Your task to perform on an android device: delete a single message in the gmail app Image 0: 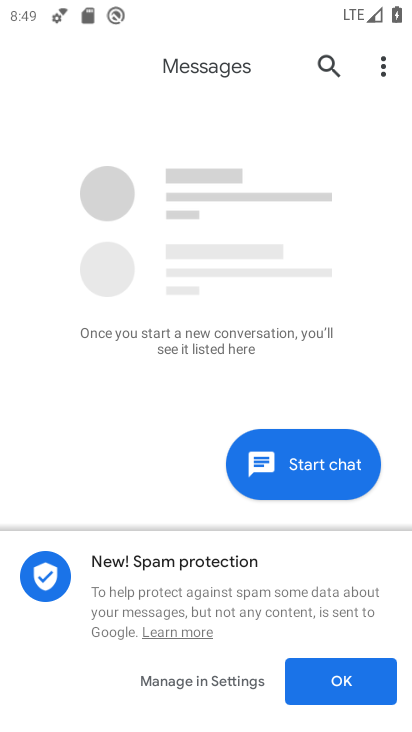
Step 0: press home button
Your task to perform on an android device: delete a single message in the gmail app Image 1: 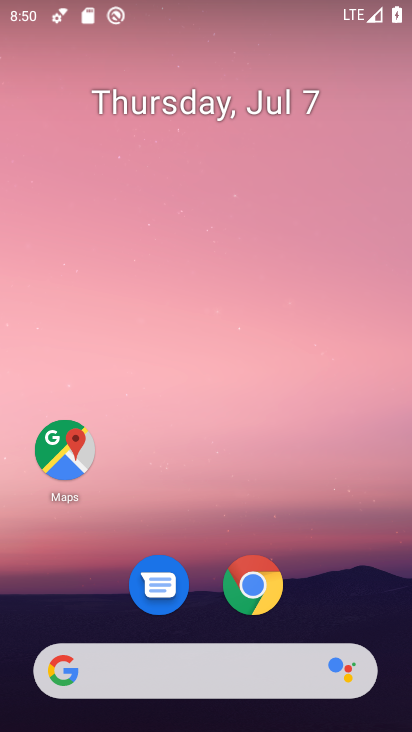
Step 1: drag from (242, 479) to (259, 53)
Your task to perform on an android device: delete a single message in the gmail app Image 2: 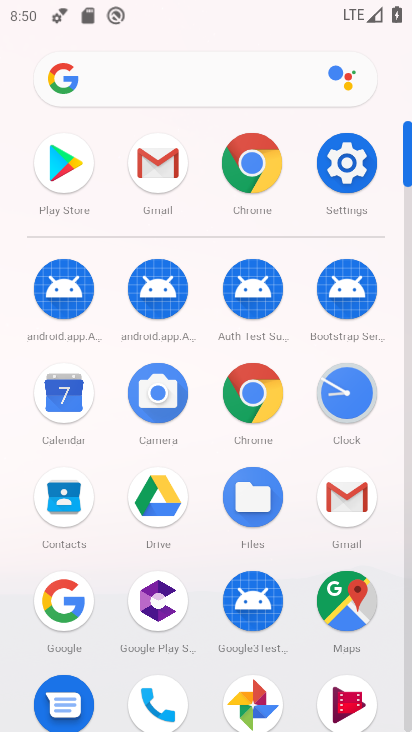
Step 2: click (158, 162)
Your task to perform on an android device: delete a single message in the gmail app Image 3: 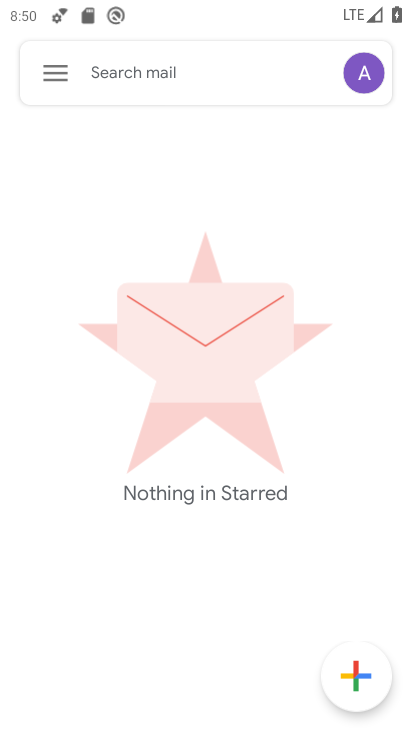
Step 3: click (56, 76)
Your task to perform on an android device: delete a single message in the gmail app Image 4: 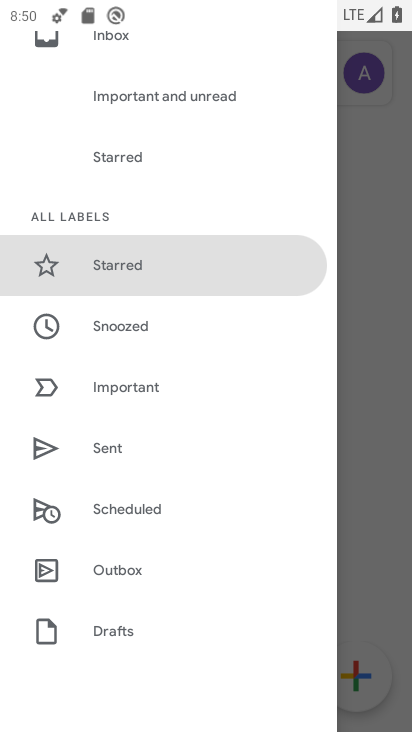
Step 4: drag from (162, 609) to (206, 296)
Your task to perform on an android device: delete a single message in the gmail app Image 5: 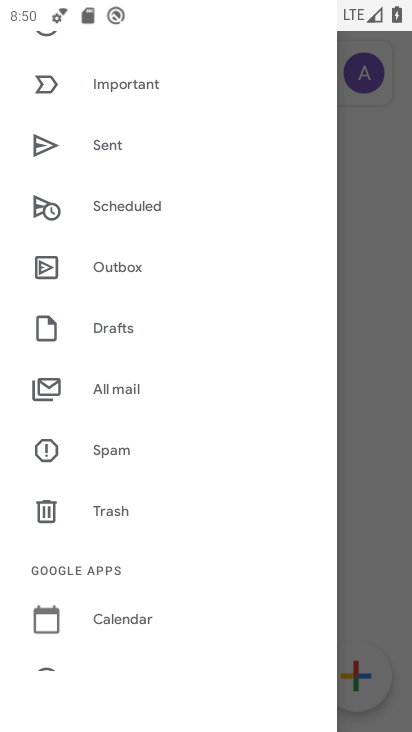
Step 5: click (131, 382)
Your task to perform on an android device: delete a single message in the gmail app Image 6: 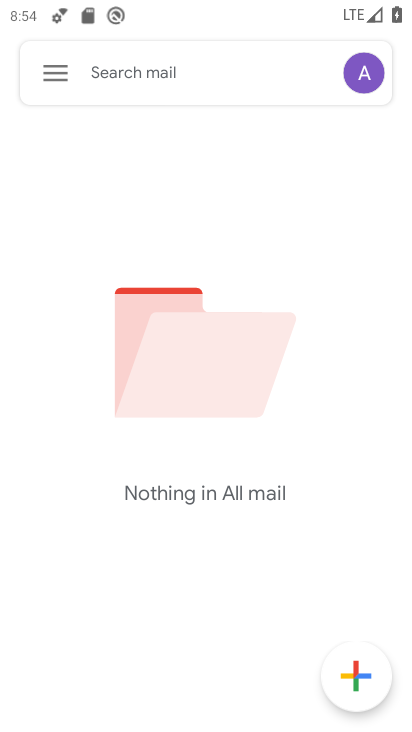
Step 6: task complete